Your task to perform on an android device: Go to CNN.com Image 0: 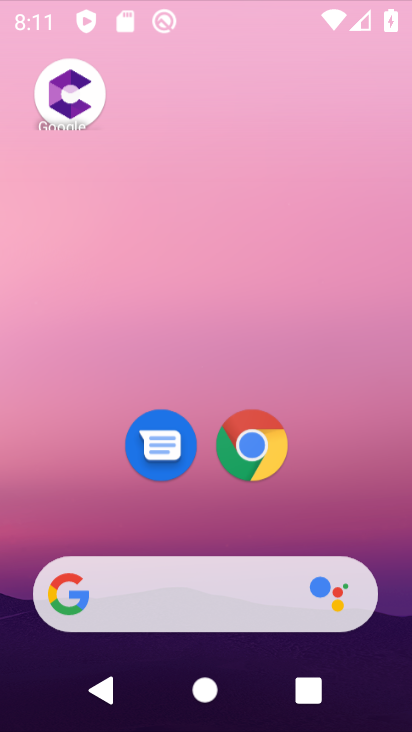
Step 0: press home button
Your task to perform on an android device: Go to CNN.com Image 1: 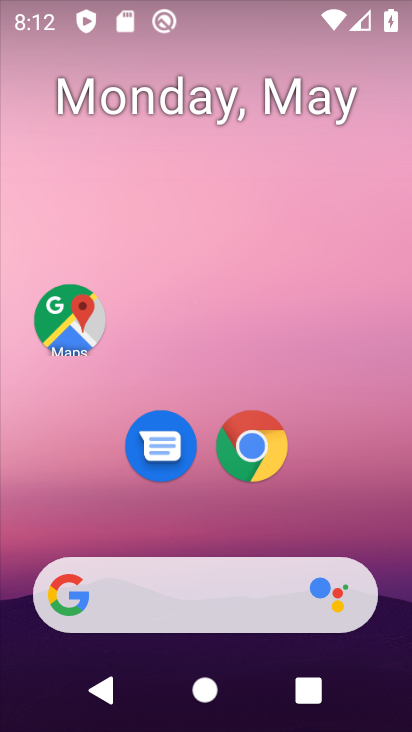
Step 1: drag from (201, 534) to (253, 50)
Your task to perform on an android device: Go to CNN.com Image 2: 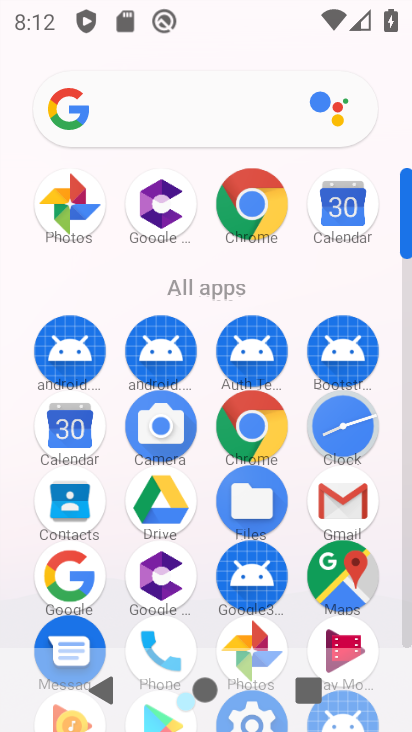
Step 2: drag from (204, 623) to (216, 217)
Your task to perform on an android device: Go to CNN.com Image 3: 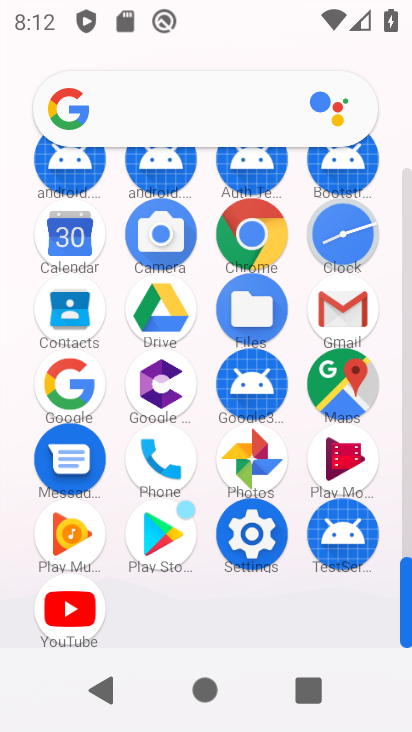
Step 3: click (248, 527)
Your task to perform on an android device: Go to CNN.com Image 4: 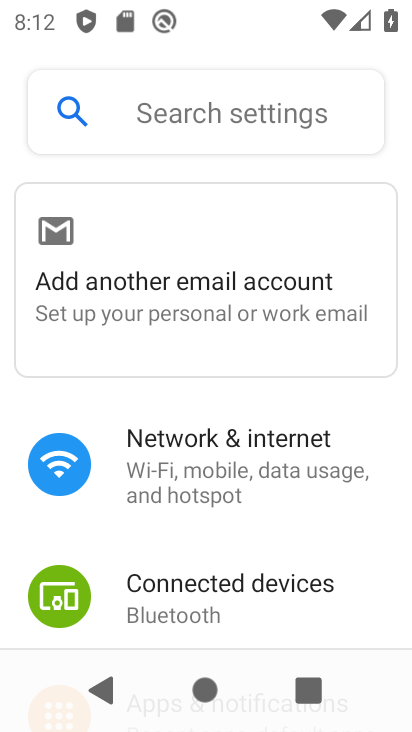
Step 4: press home button
Your task to perform on an android device: Go to CNN.com Image 5: 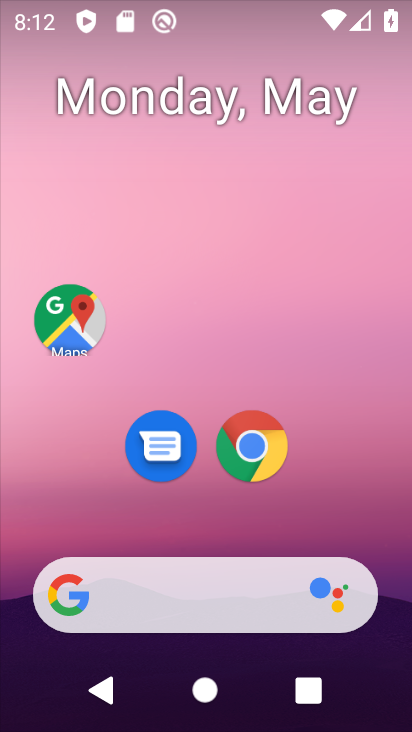
Step 5: click (248, 438)
Your task to perform on an android device: Go to CNN.com Image 6: 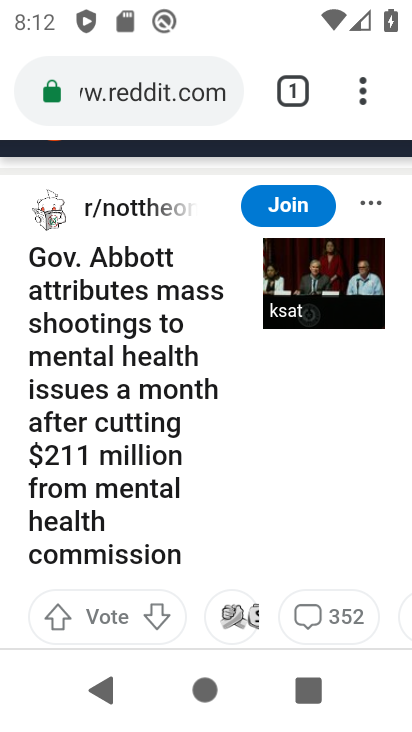
Step 6: click (293, 80)
Your task to perform on an android device: Go to CNN.com Image 7: 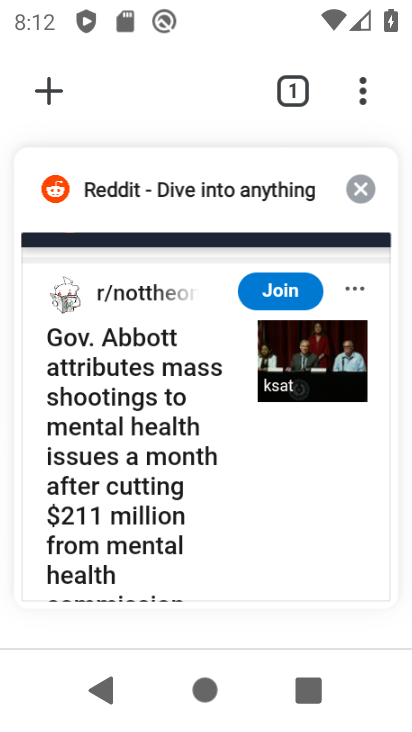
Step 7: click (361, 186)
Your task to perform on an android device: Go to CNN.com Image 8: 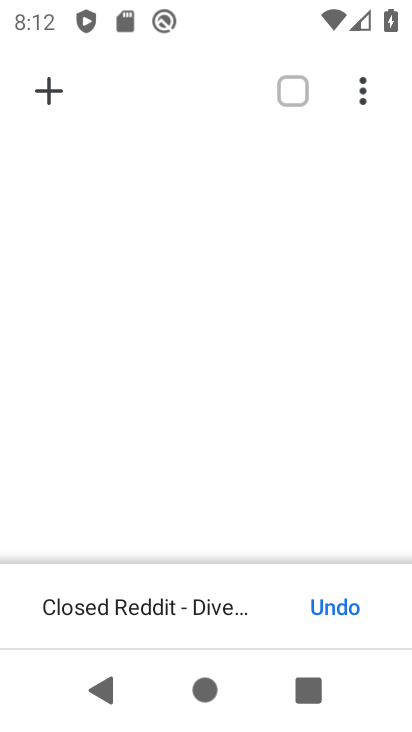
Step 8: click (55, 98)
Your task to perform on an android device: Go to CNN.com Image 9: 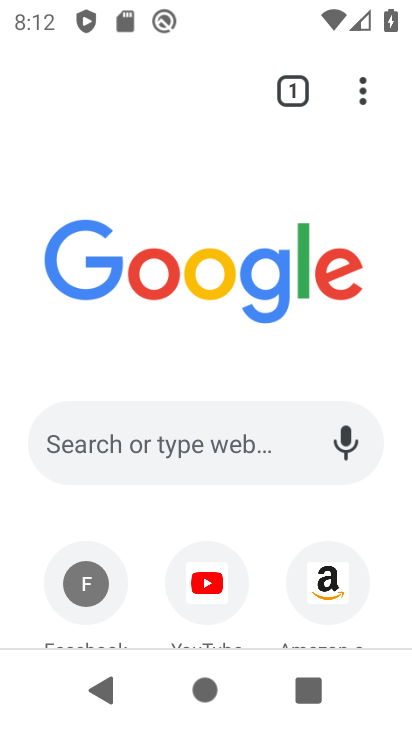
Step 9: click (165, 439)
Your task to perform on an android device: Go to CNN.com Image 10: 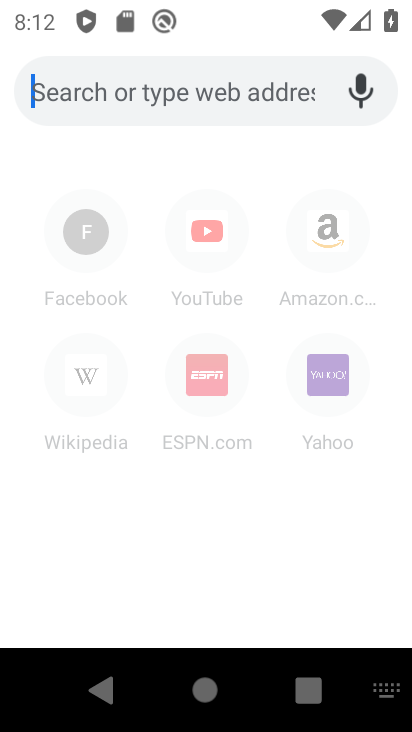
Step 10: type "cnn.com"
Your task to perform on an android device: Go to CNN.com Image 11: 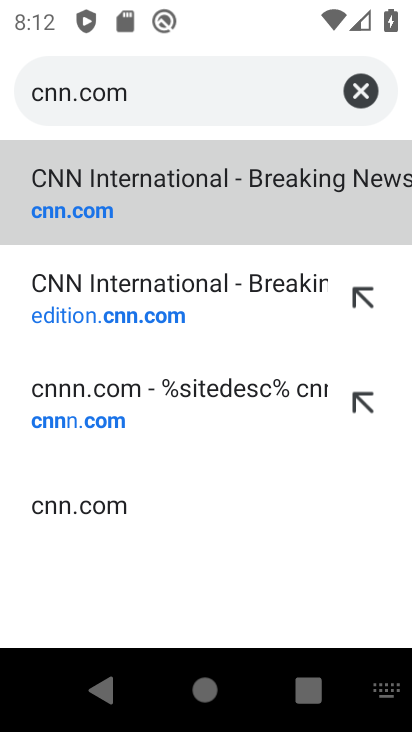
Step 11: click (166, 204)
Your task to perform on an android device: Go to CNN.com Image 12: 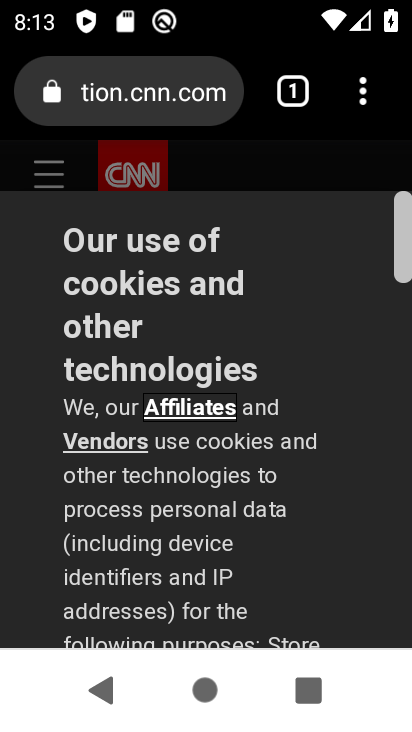
Step 12: drag from (246, 573) to (298, 198)
Your task to perform on an android device: Go to CNN.com Image 13: 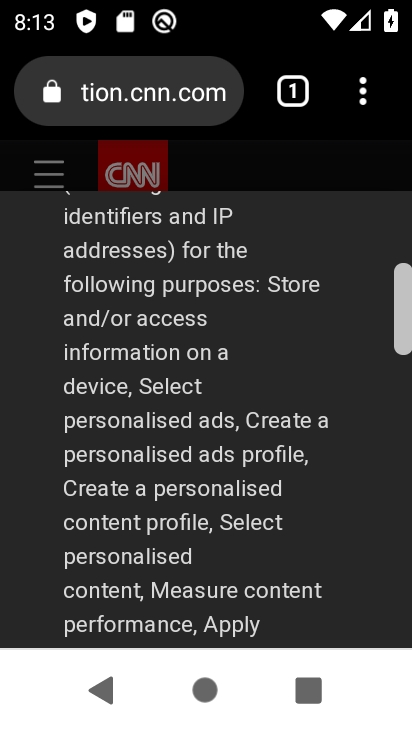
Step 13: drag from (238, 572) to (250, 288)
Your task to perform on an android device: Go to CNN.com Image 14: 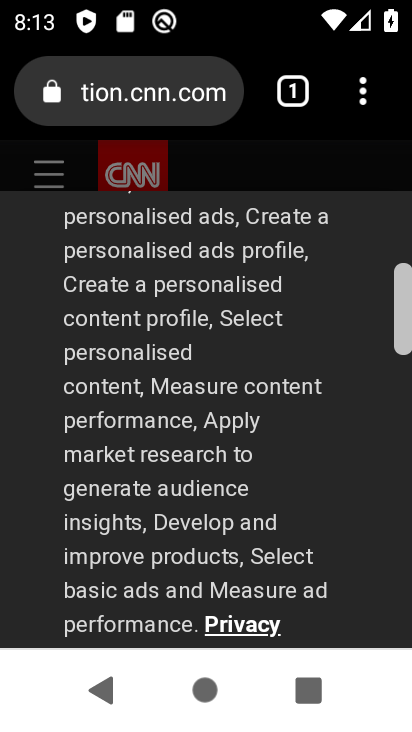
Step 14: click (275, 185)
Your task to perform on an android device: Go to CNN.com Image 15: 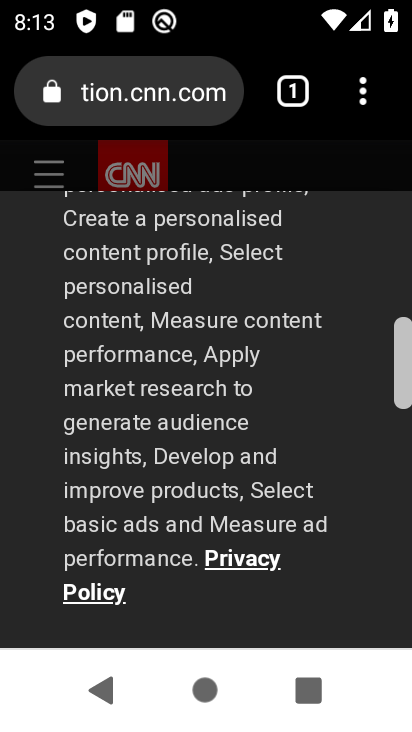
Step 15: drag from (165, 592) to (200, 184)
Your task to perform on an android device: Go to CNN.com Image 16: 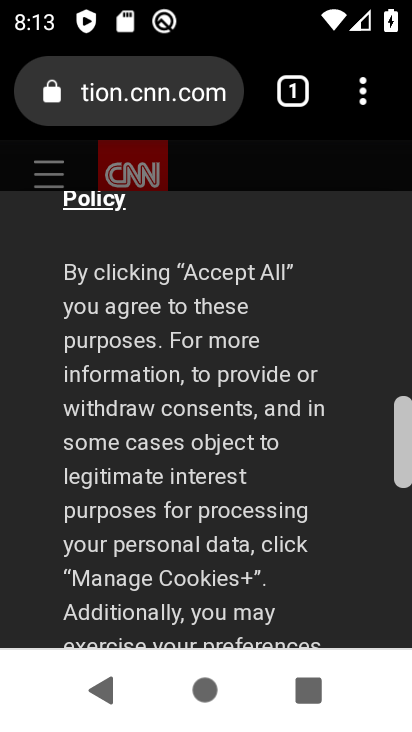
Step 16: drag from (193, 586) to (227, 217)
Your task to perform on an android device: Go to CNN.com Image 17: 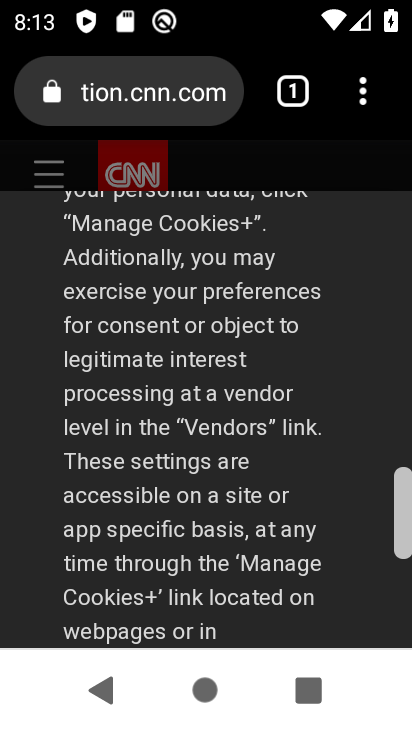
Step 17: drag from (221, 585) to (266, 211)
Your task to perform on an android device: Go to CNN.com Image 18: 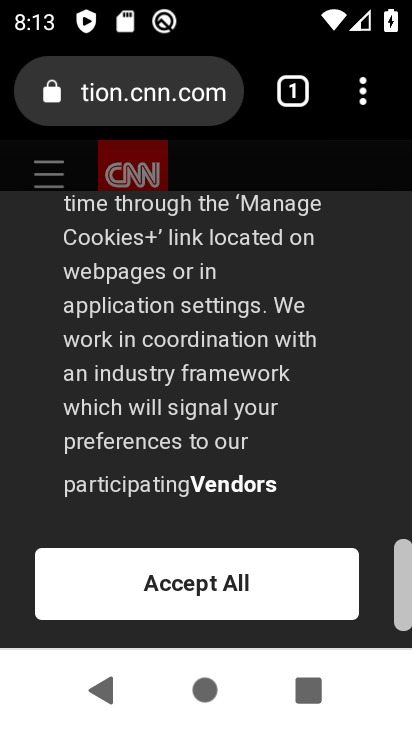
Step 18: click (196, 586)
Your task to perform on an android device: Go to CNN.com Image 19: 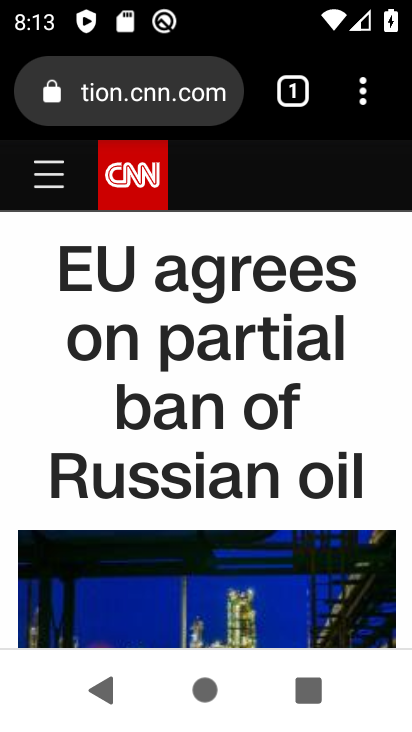
Step 19: task complete